Your task to perform on an android device: Go to Reddit.com Image 0: 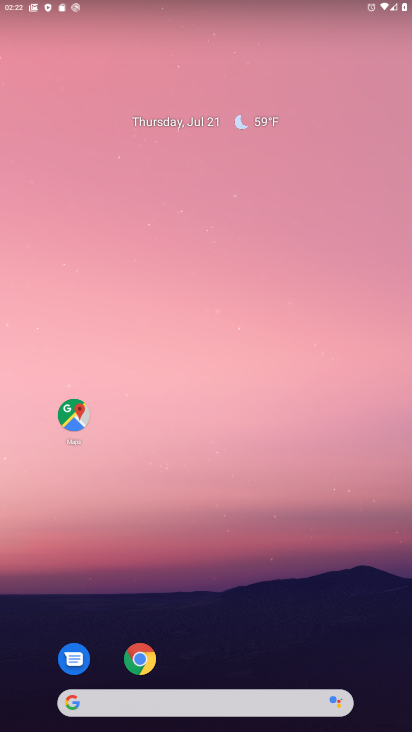
Step 0: click (212, 49)
Your task to perform on an android device: Go to Reddit.com Image 1: 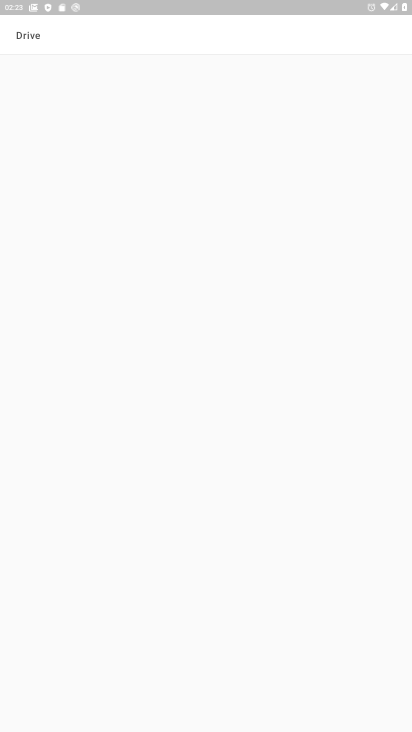
Step 1: press home button
Your task to perform on an android device: Go to Reddit.com Image 2: 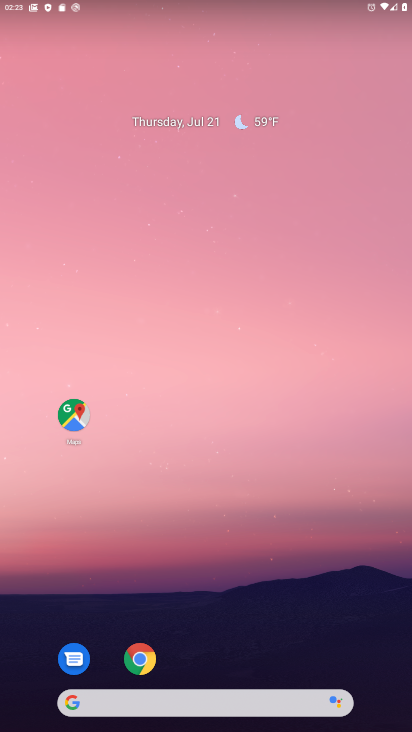
Step 2: drag from (279, 547) to (236, 74)
Your task to perform on an android device: Go to Reddit.com Image 3: 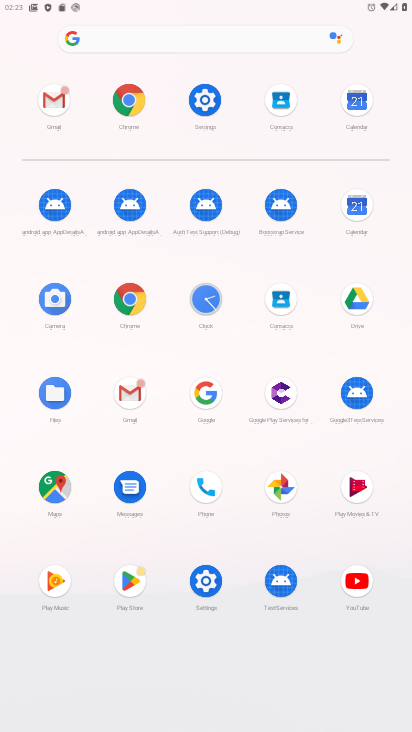
Step 3: click (132, 95)
Your task to perform on an android device: Go to Reddit.com Image 4: 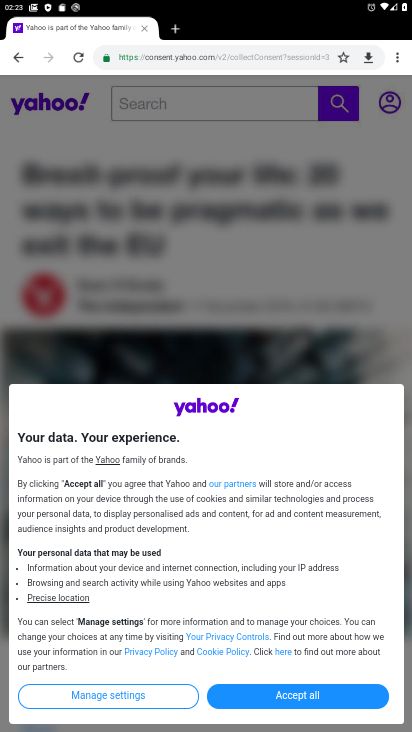
Step 4: click (278, 48)
Your task to perform on an android device: Go to Reddit.com Image 5: 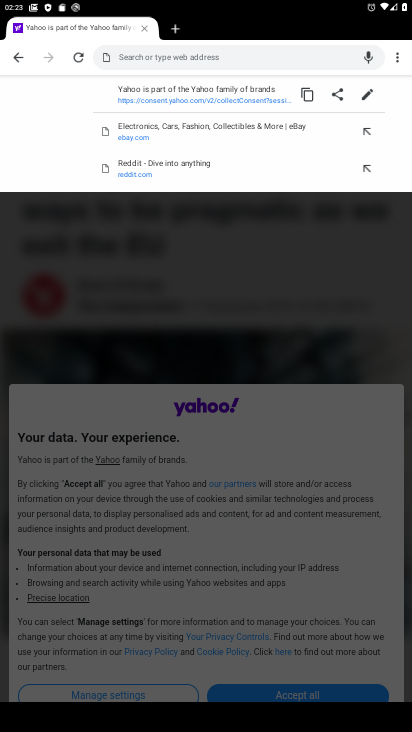
Step 5: type "reddit.com"
Your task to perform on an android device: Go to Reddit.com Image 6: 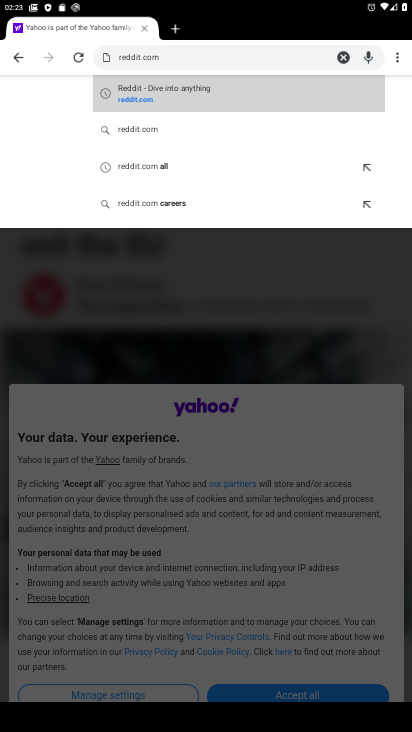
Step 6: click (124, 97)
Your task to perform on an android device: Go to Reddit.com Image 7: 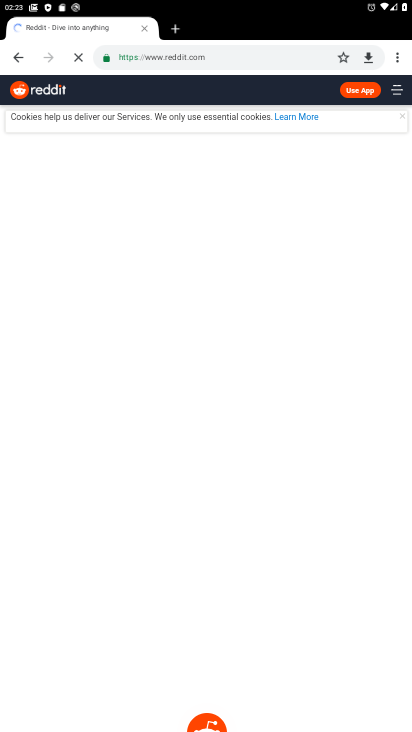
Step 7: task complete